Your task to perform on an android device: Open sound settings Image 0: 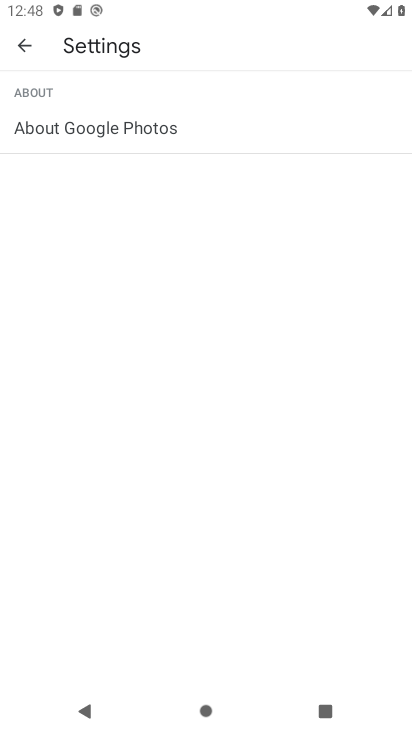
Step 0: drag from (173, 5) to (37, 631)
Your task to perform on an android device: Open sound settings Image 1: 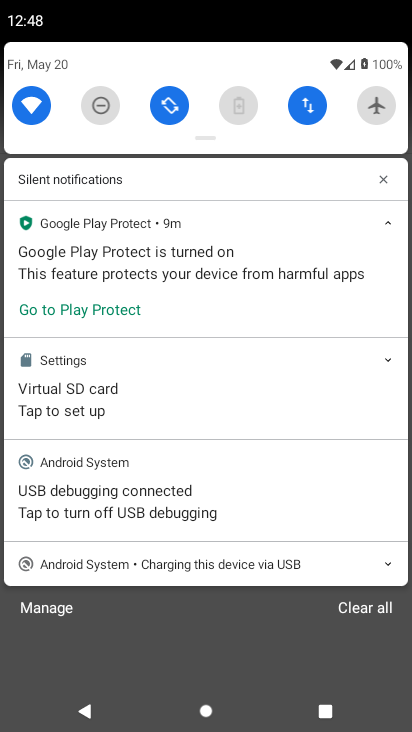
Step 1: drag from (247, 35) to (259, 488)
Your task to perform on an android device: Open sound settings Image 2: 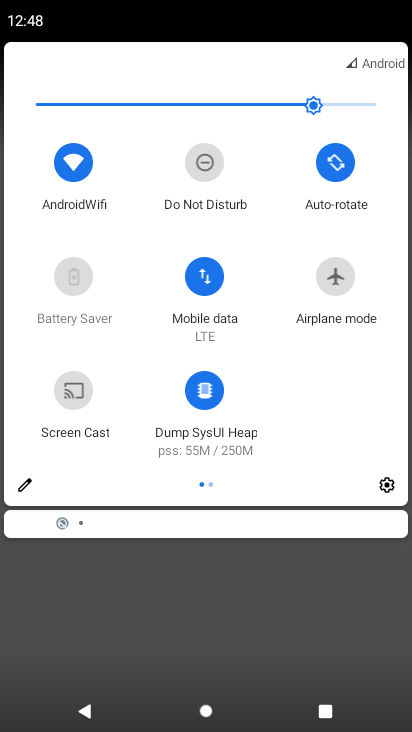
Step 2: click (389, 483)
Your task to perform on an android device: Open sound settings Image 3: 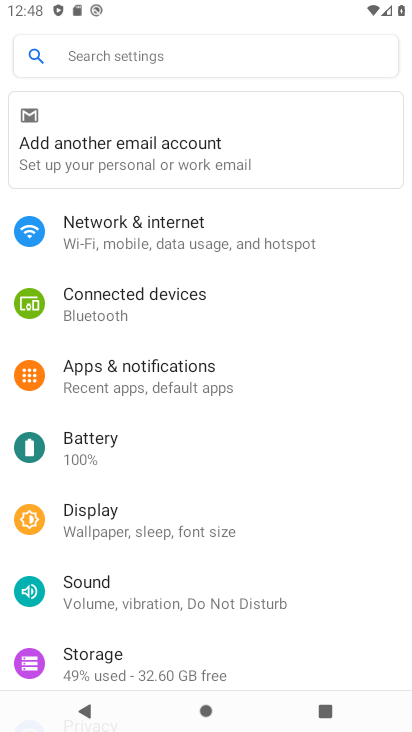
Step 3: click (137, 574)
Your task to perform on an android device: Open sound settings Image 4: 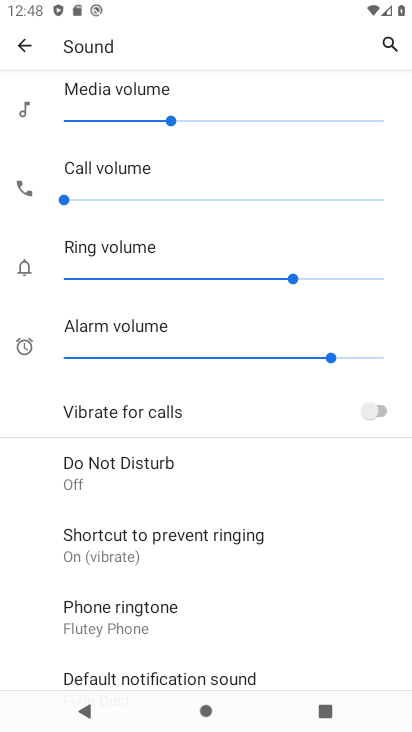
Step 4: task complete